Your task to perform on an android device: uninstall "Speedtest by Ookla" Image 0: 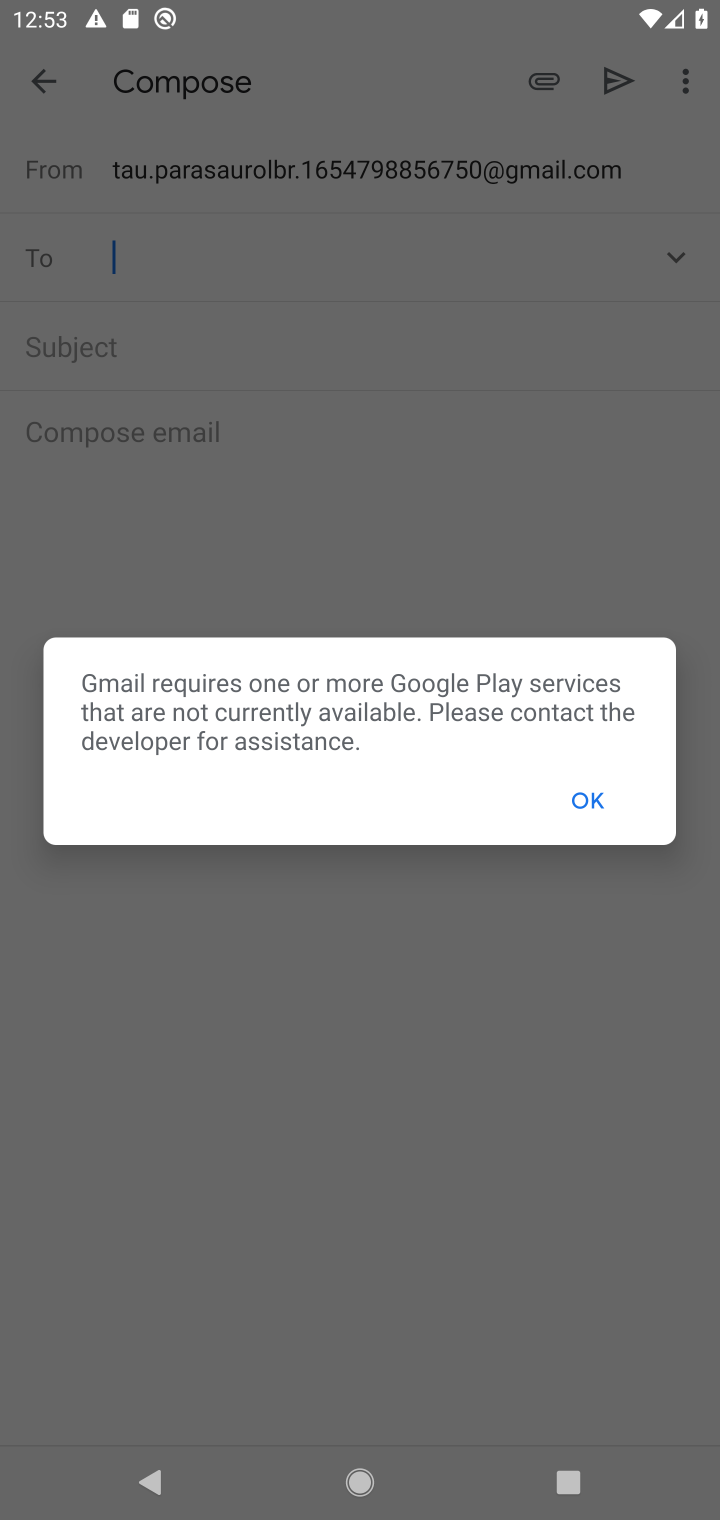
Step 0: press home button
Your task to perform on an android device: uninstall "Speedtest by Ookla" Image 1: 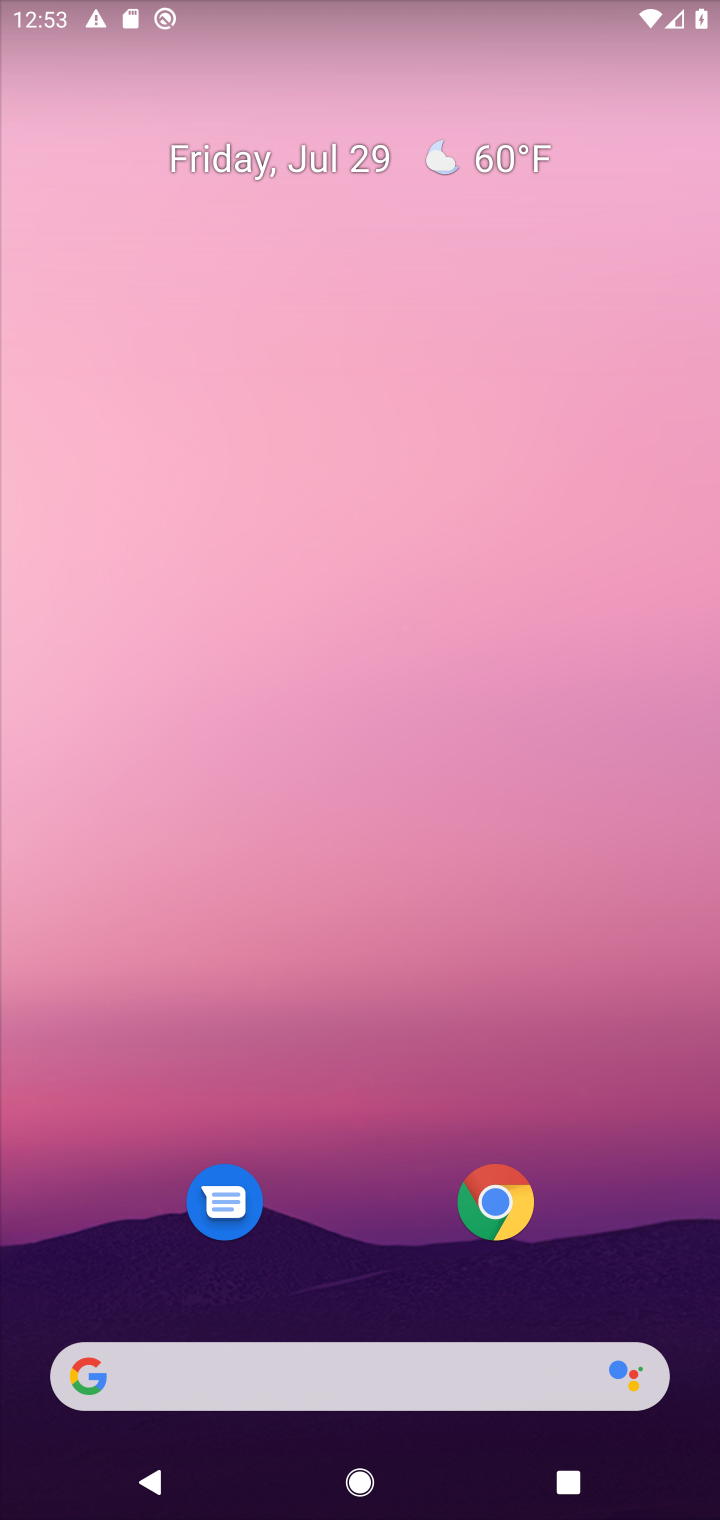
Step 1: click (357, 1385)
Your task to perform on an android device: uninstall "Speedtest by Ookla" Image 2: 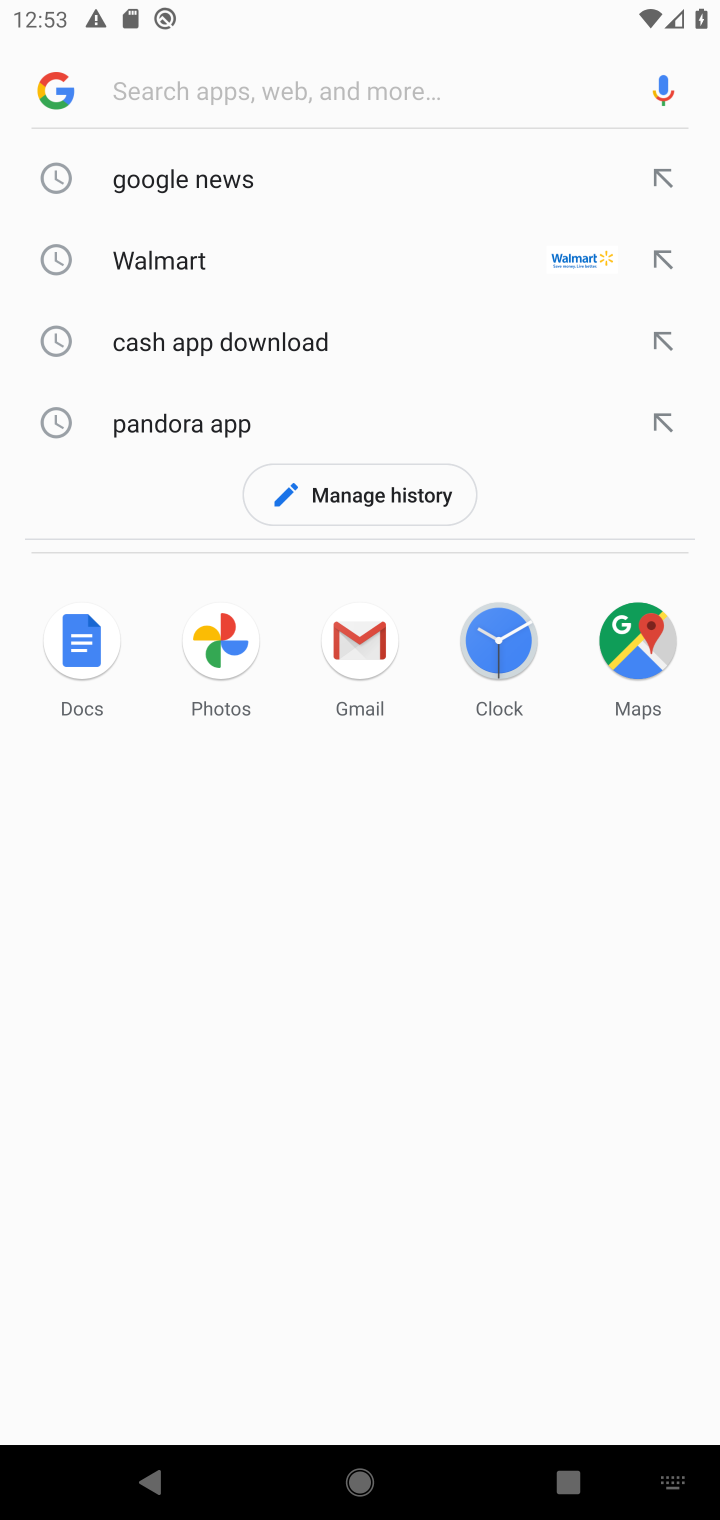
Step 2: type "speedtest"
Your task to perform on an android device: uninstall "Speedtest by Ookla" Image 3: 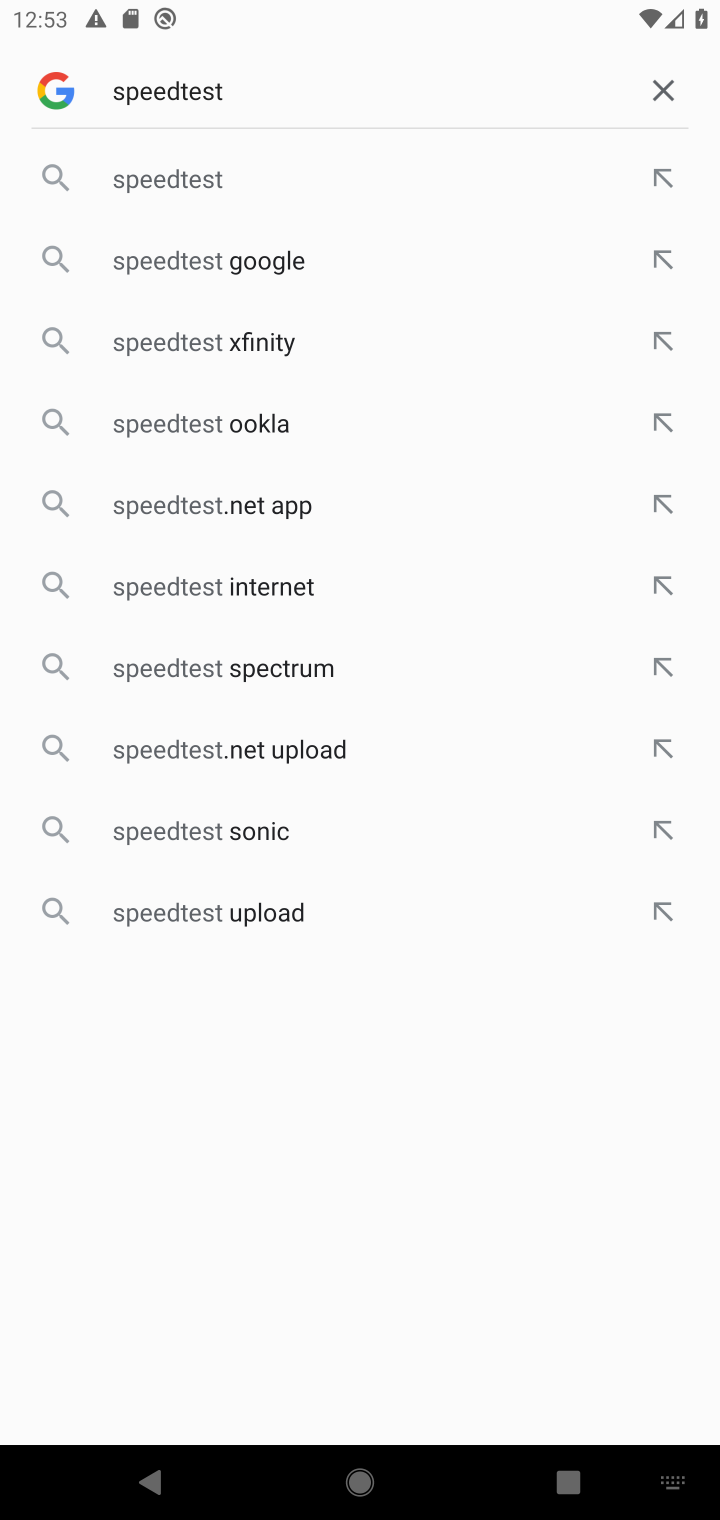
Step 3: click (146, 173)
Your task to perform on an android device: uninstall "Speedtest by Ookla" Image 4: 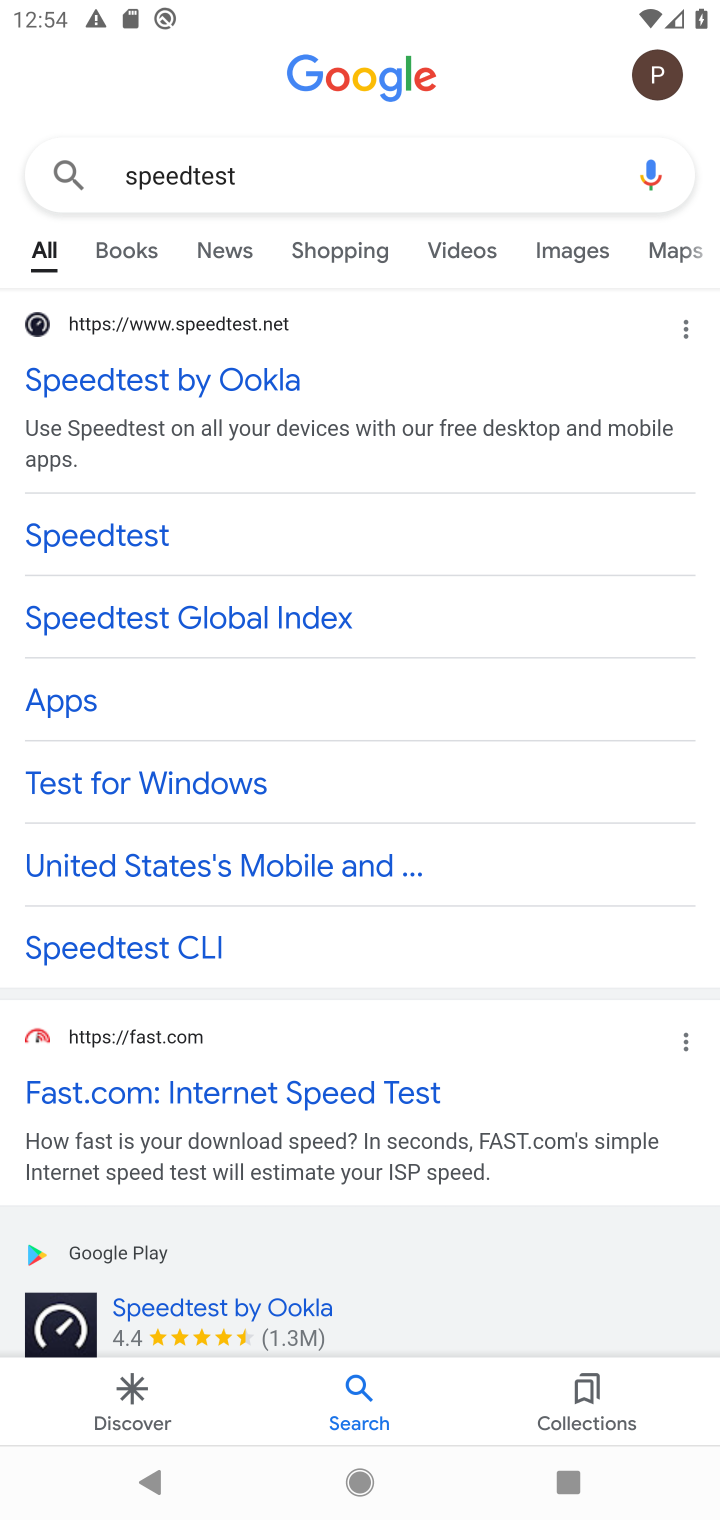
Step 4: drag from (419, 945) to (381, 588)
Your task to perform on an android device: uninstall "Speedtest by Ookla" Image 5: 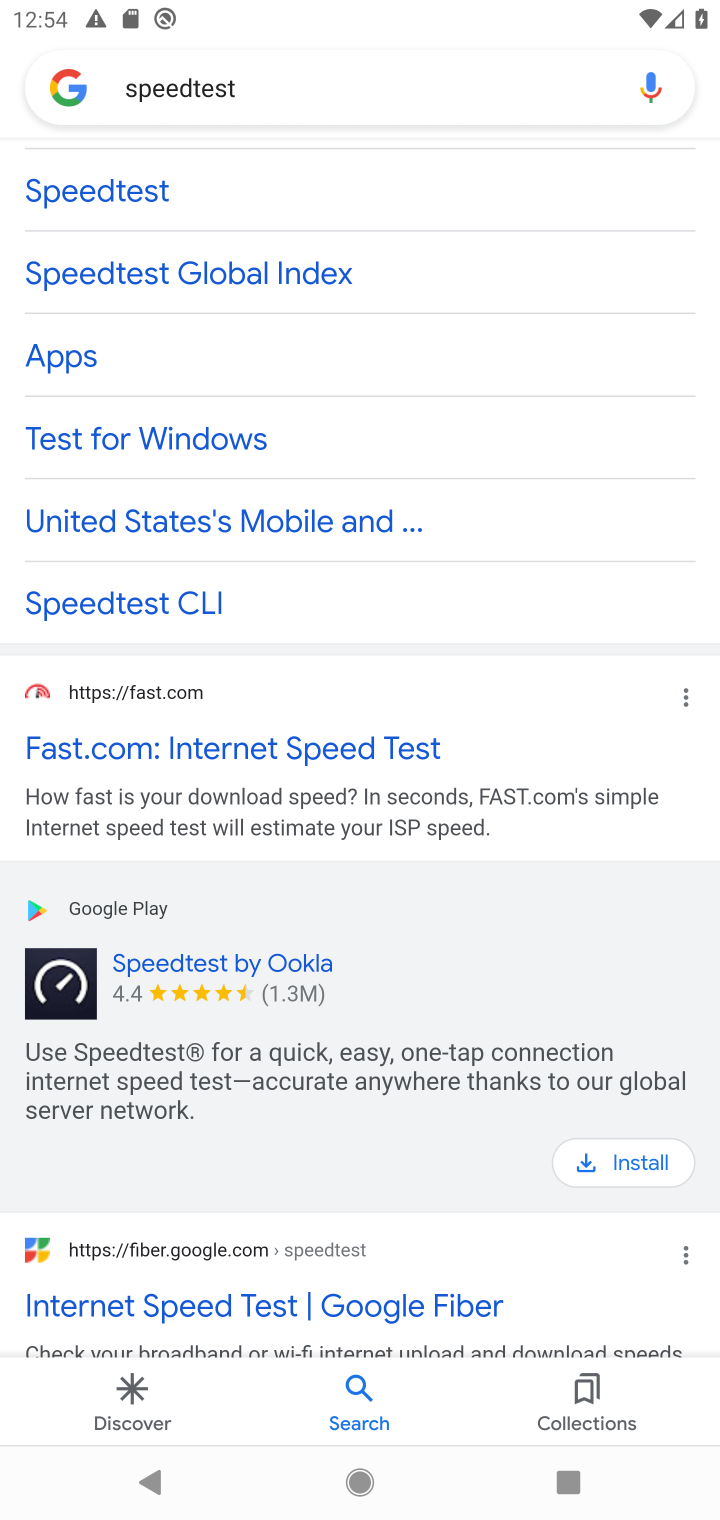
Step 5: drag from (392, 1031) to (189, 349)
Your task to perform on an android device: uninstall "Speedtest by Ookla" Image 6: 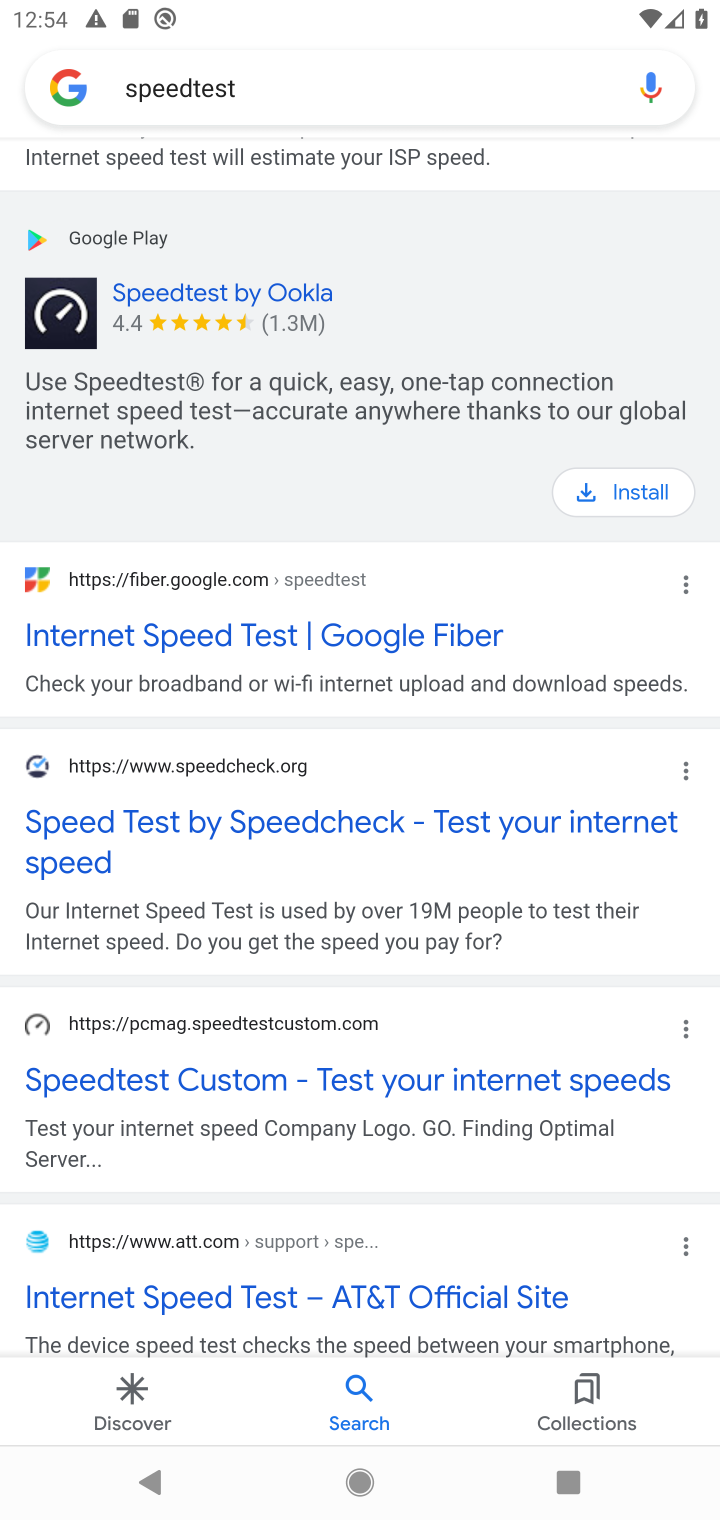
Step 6: click (596, 1044)
Your task to perform on an android device: uninstall "Speedtest by Ookla" Image 7: 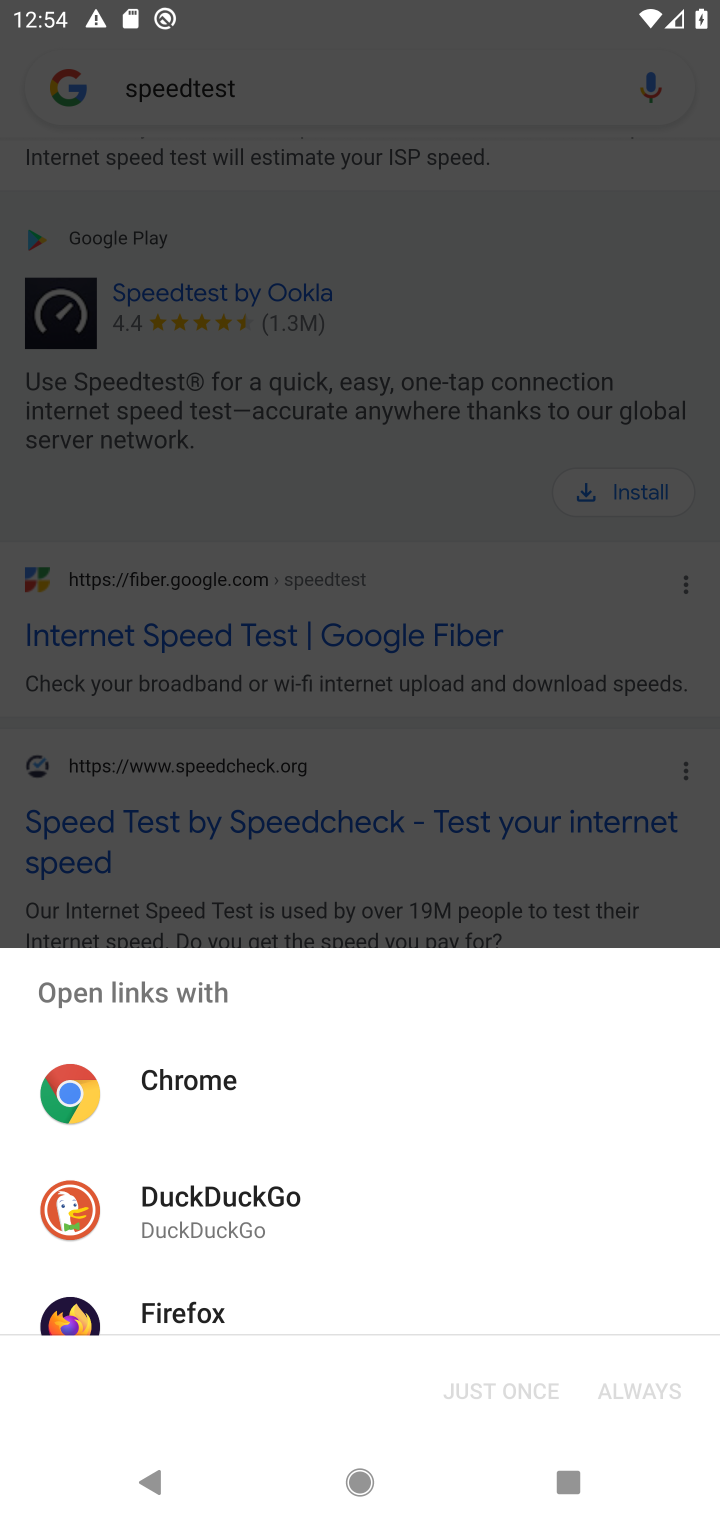
Step 7: click (579, 583)
Your task to perform on an android device: uninstall "Speedtest by Ookla" Image 8: 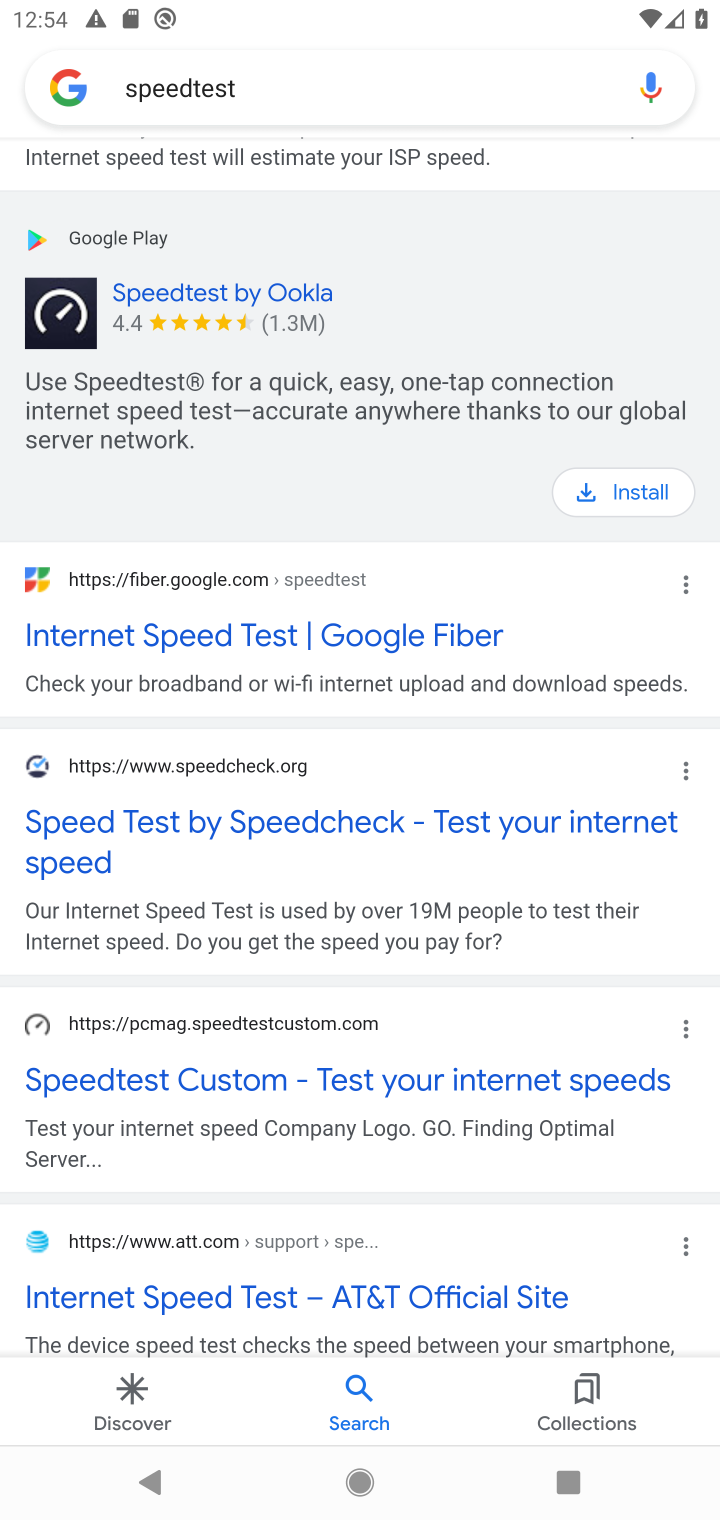
Step 8: click (603, 499)
Your task to perform on an android device: uninstall "Speedtest by Ookla" Image 9: 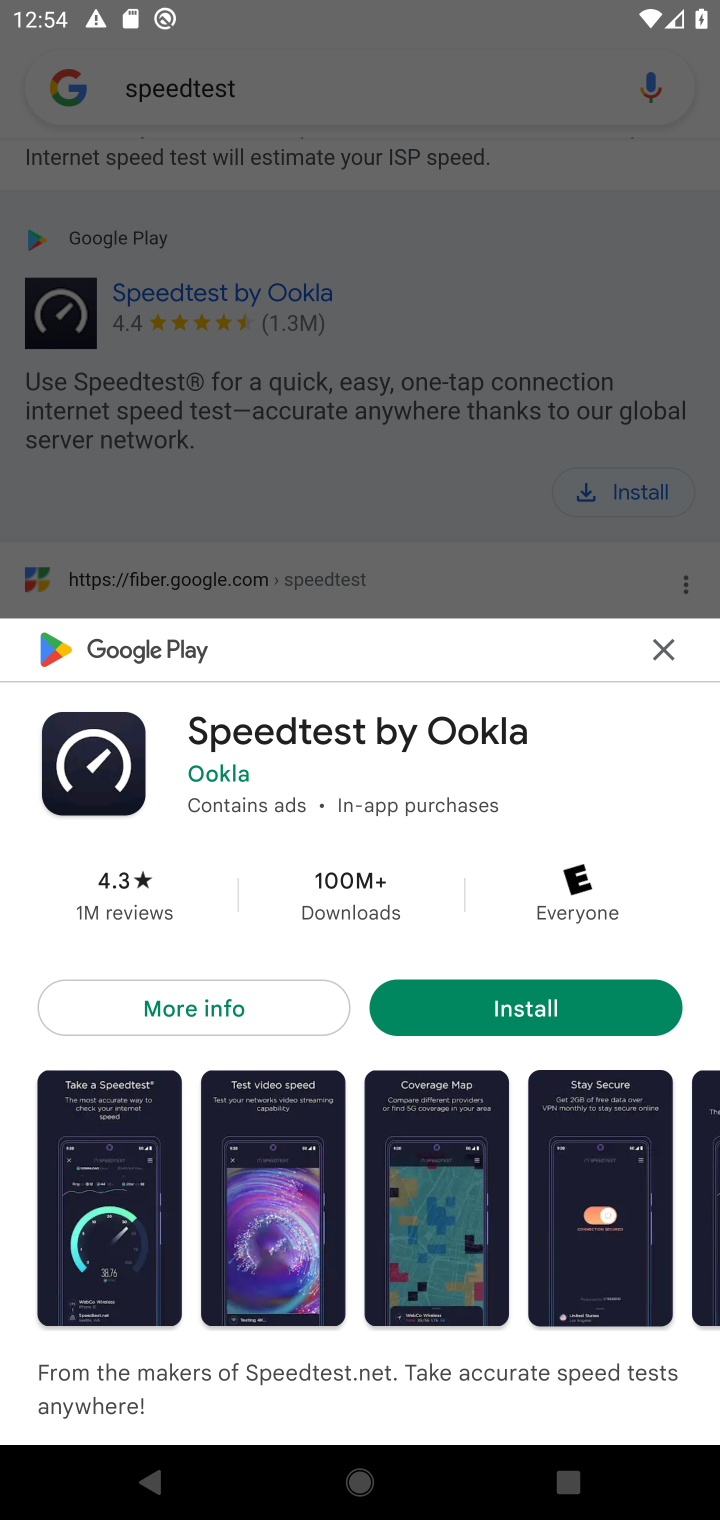
Step 9: click (416, 1014)
Your task to perform on an android device: uninstall "Speedtest by Ookla" Image 10: 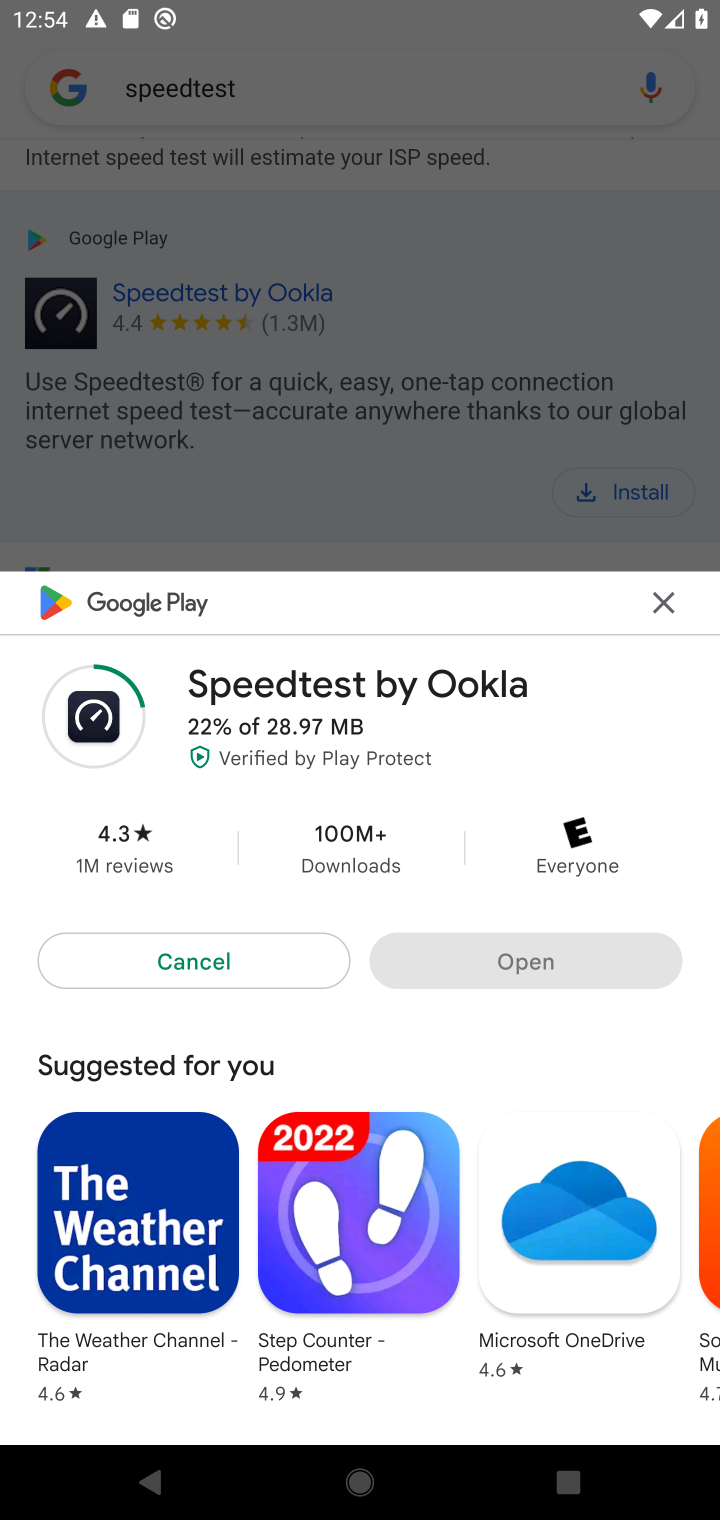
Step 10: task complete